Your task to perform on an android device: check google app version Image 0: 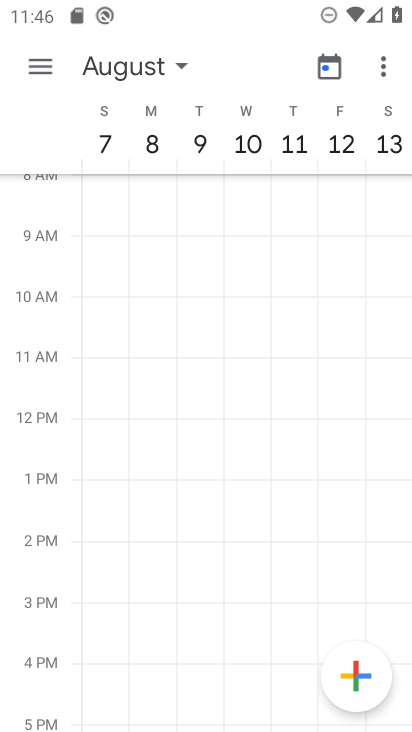
Step 0: press home button
Your task to perform on an android device: check google app version Image 1: 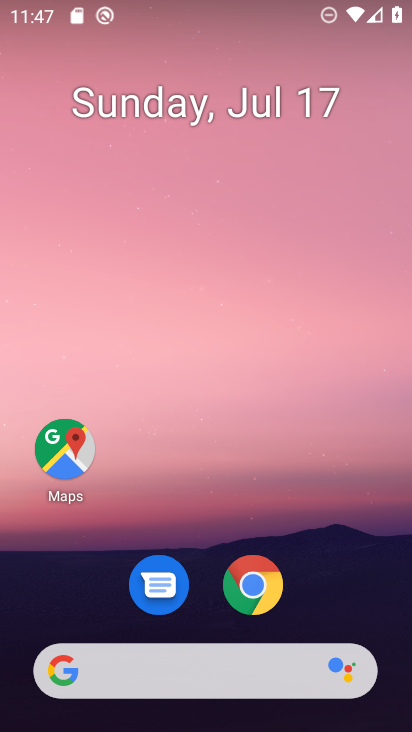
Step 1: drag from (206, 663) to (299, 80)
Your task to perform on an android device: check google app version Image 2: 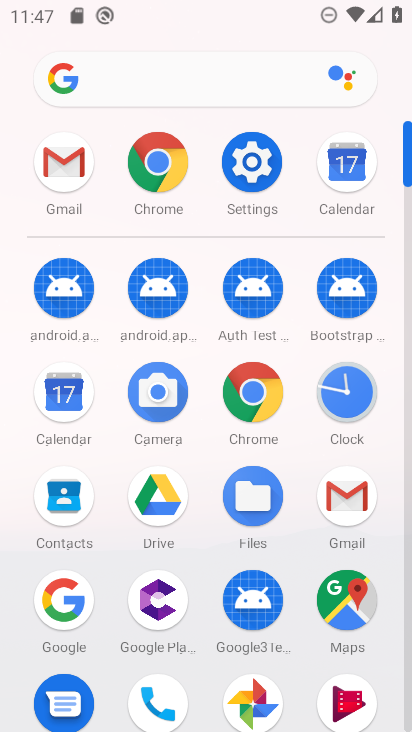
Step 2: drag from (65, 599) to (261, 421)
Your task to perform on an android device: check google app version Image 3: 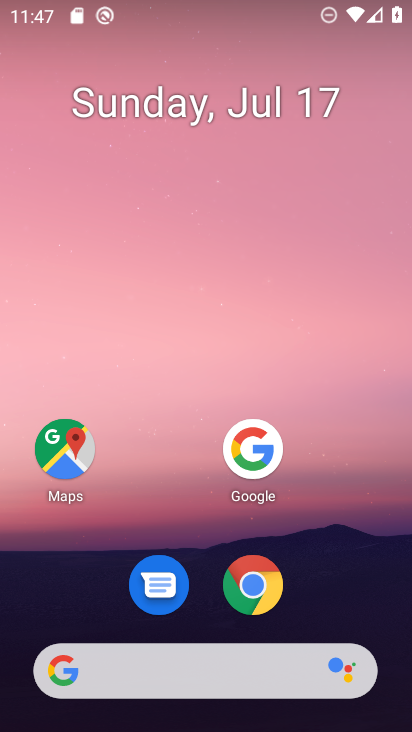
Step 3: click (246, 440)
Your task to perform on an android device: check google app version Image 4: 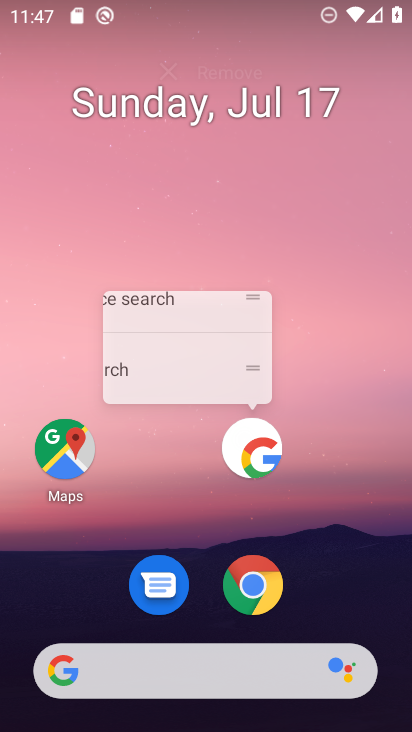
Step 4: click (181, 233)
Your task to perform on an android device: check google app version Image 5: 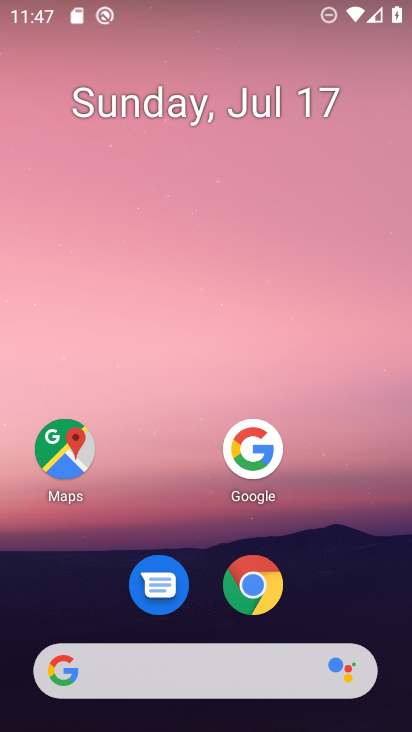
Step 5: click (249, 443)
Your task to perform on an android device: check google app version Image 6: 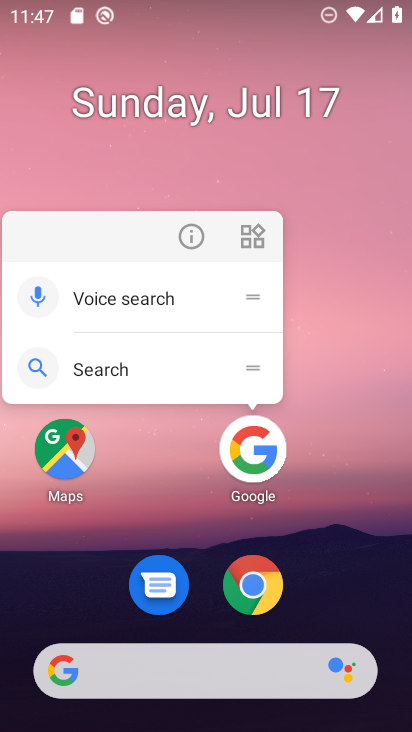
Step 6: click (182, 245)
Your task to perform on an android device: check google app version Image 7: 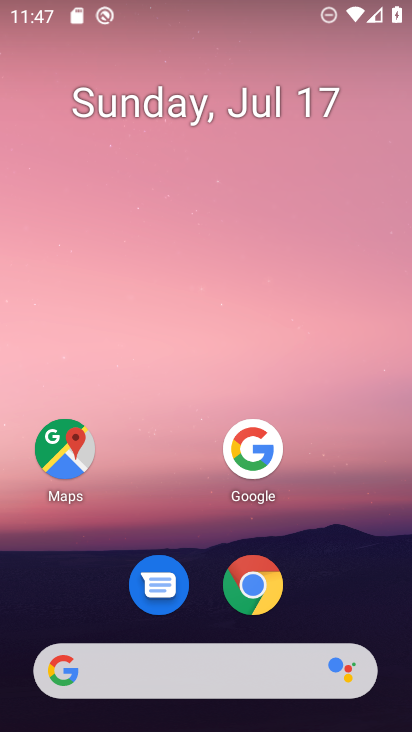
Step 7: click (251, 427)
Your task to perform on an android device: check google app version Image 8: 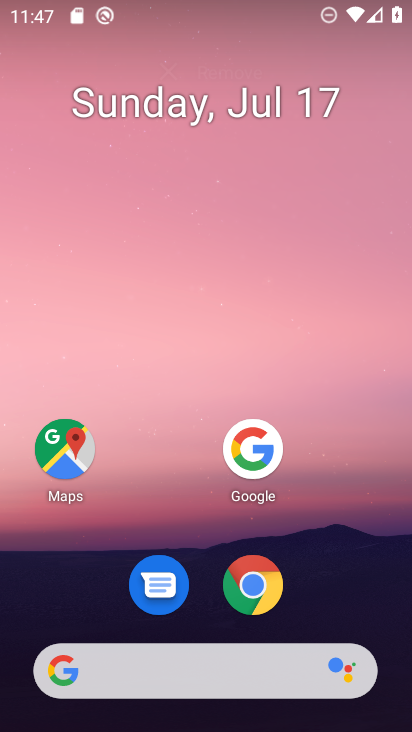
Step 8: click (196, 240)
Your task to perform on an android device: check google app version Image 9: 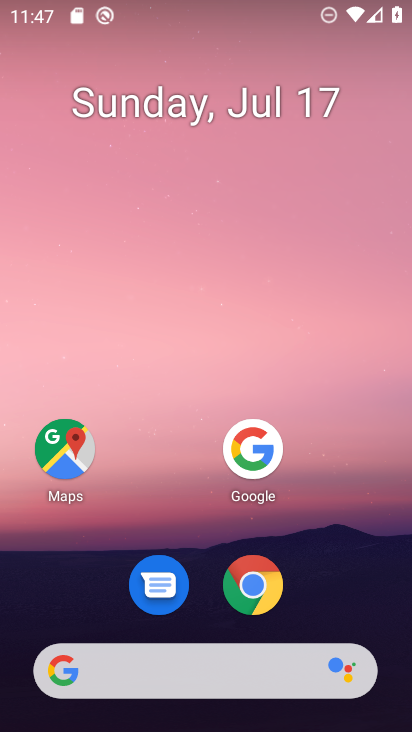
Step 9: drag from (258, 425) to (242, 379)
Your task to perform on an android device: check google app version Image 10: 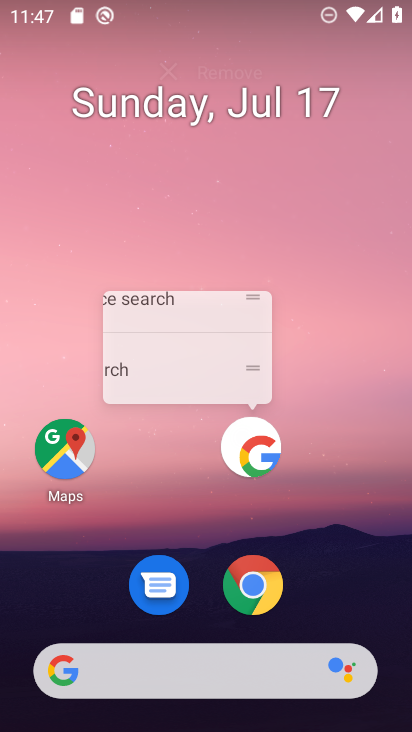
Step 10: click (186, 236)
Your task to perform on an android device: check google app version Image 11: 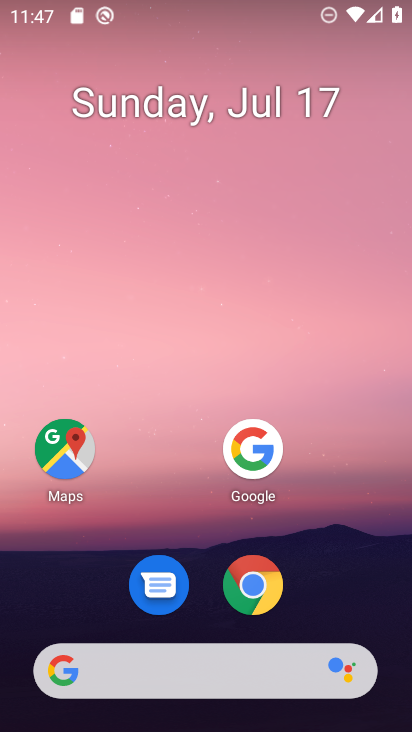
Step 11: click (250, 430)
Your task to perform on an android device: check google app version Image 12: 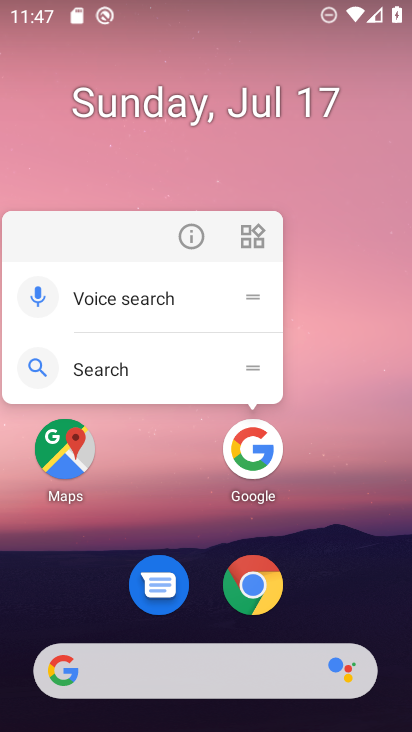
Step 12: click (189, 240)
Your task to perform on an android device: check google app version Image 13: 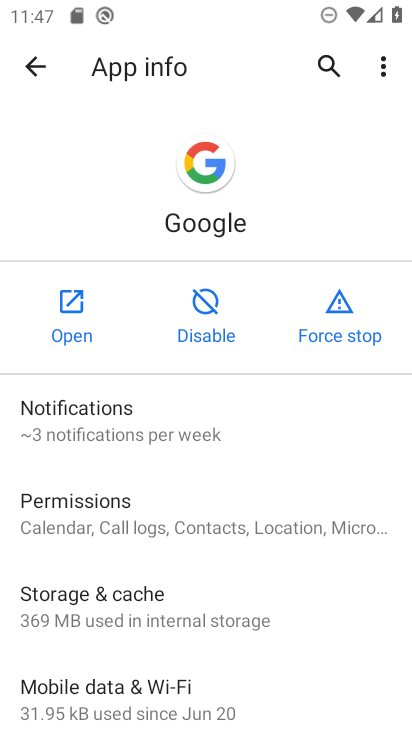
Step 13: drag from (232, 676) to (307, 58)
Your task to perform on an android device: check google app version Image 14: 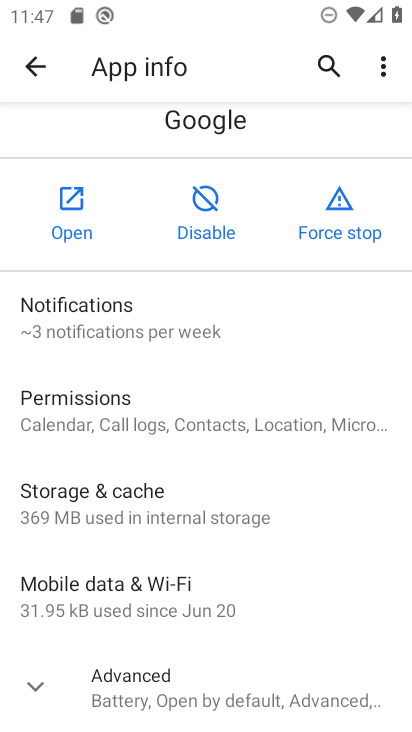
Step 14: click (131, 676)
Your task to perform on an android device: check google app version Image 15: 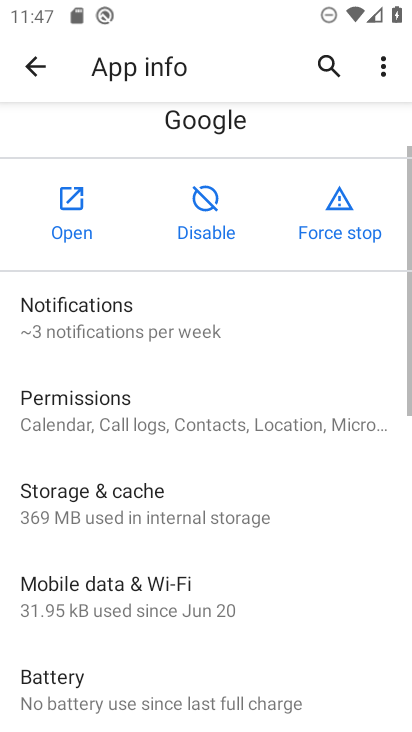
Step 15: task complete